Your task to perform on an android device: Open network settings Image 0: 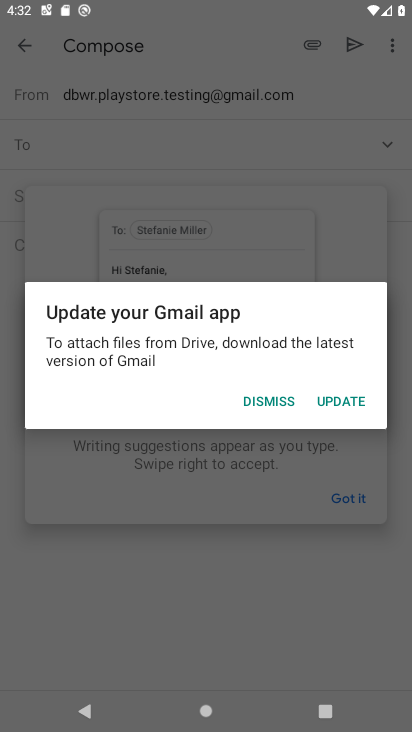
Step 0: press home button
Your task to perform on an android device: Open network settings Image 1: 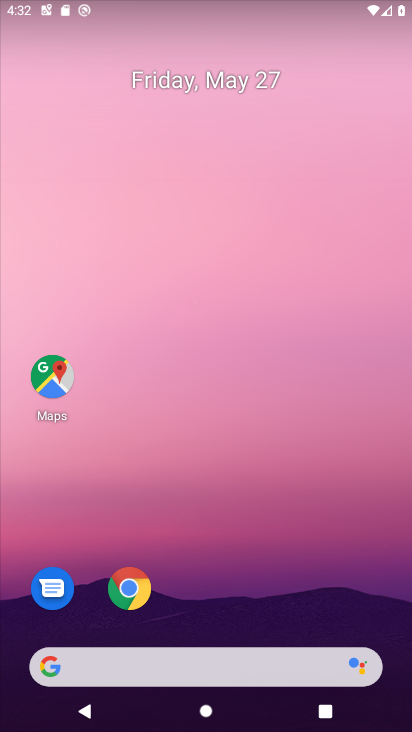
Step 1: drag from (143, 731) to (138, 86)
Your task to perform on an android device: Open network settings Image 2: 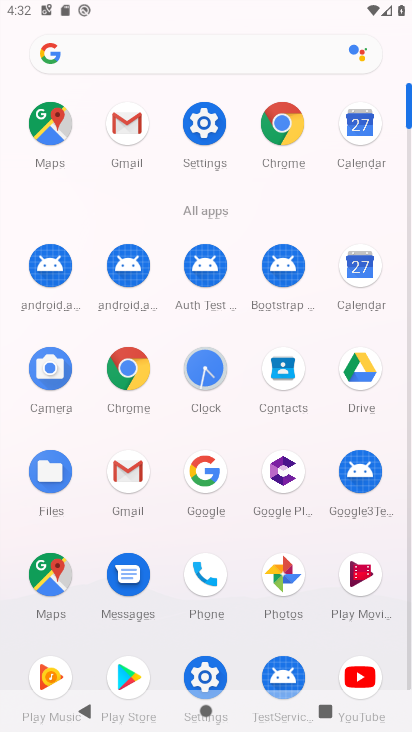
Step 2: click (218, 128)
Your task to perform on an android device: Open network settings Image 3: 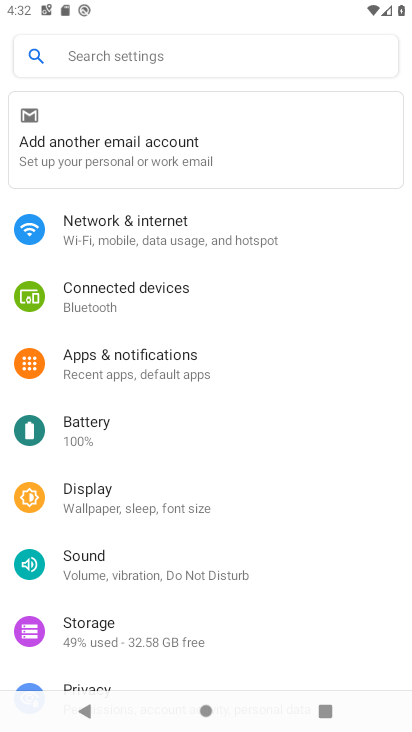
Step 3: click (182, 242)
Your task to perform on an android device: Open network settings Image 4: 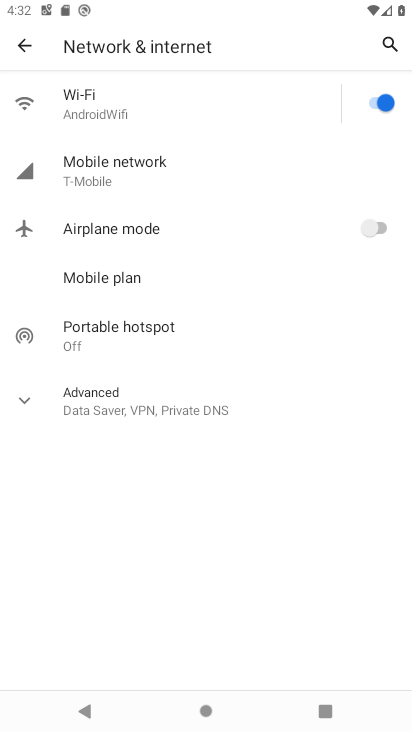
Step 4: click (132, 177)
Your task to perform on an android device: Open network settings Image 5: 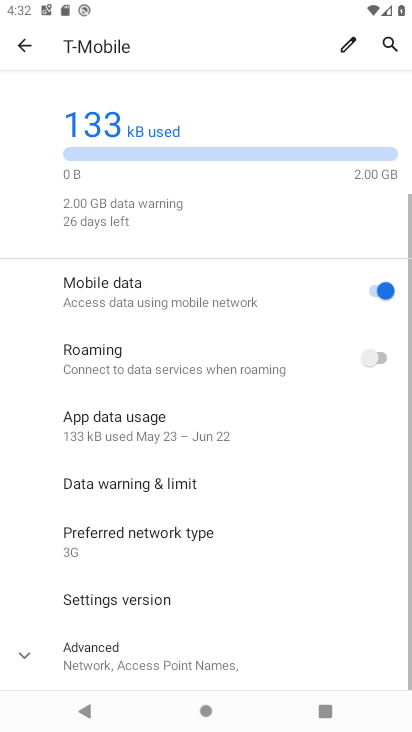
Step 5: click (141, 656)
Your task to perform on an android device: Open network settings Image 6: 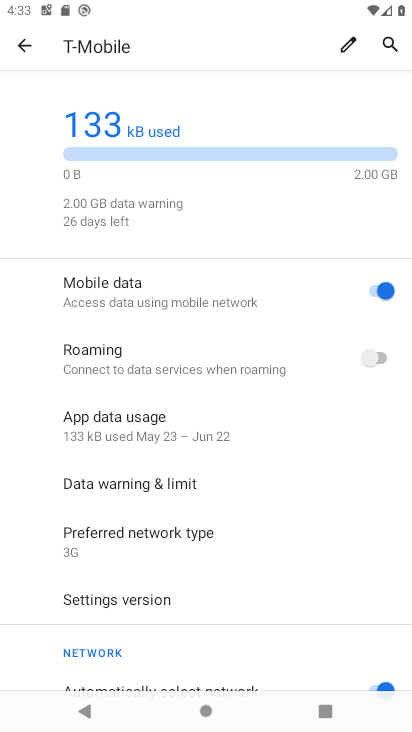
Step 6: task complete